Your task to perform on an android device: all mails in gmail Image 0: 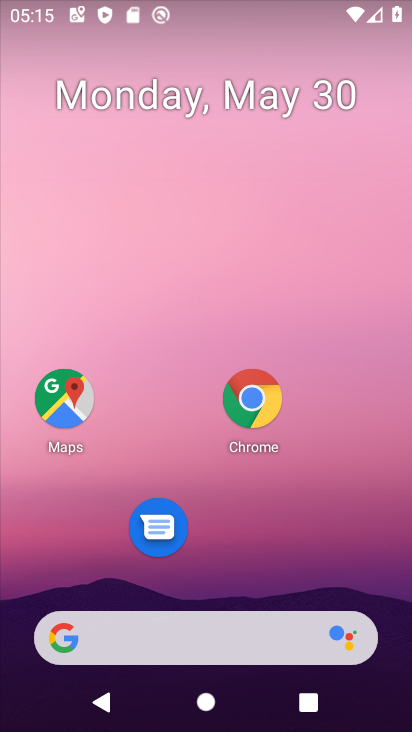
Step 0: drag from (246, 687) to (239, 64)
Your task to perform on an android device: all mails in gmail Image 1: 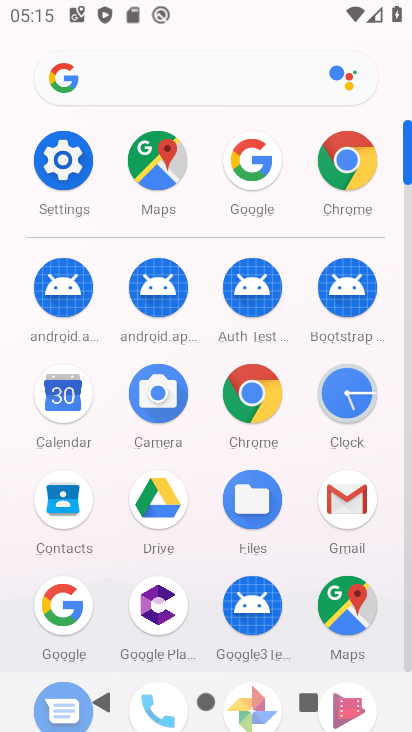
Step 1: click (343, 505)
Your task to perform on an android device: all mails in gmail Image 2: 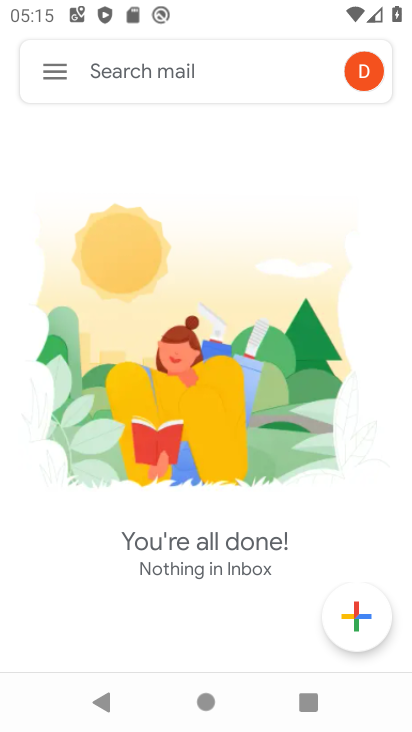
Step 2: click (60, 70)
Your task to perform on an android device: all mails in gmail Image 3: 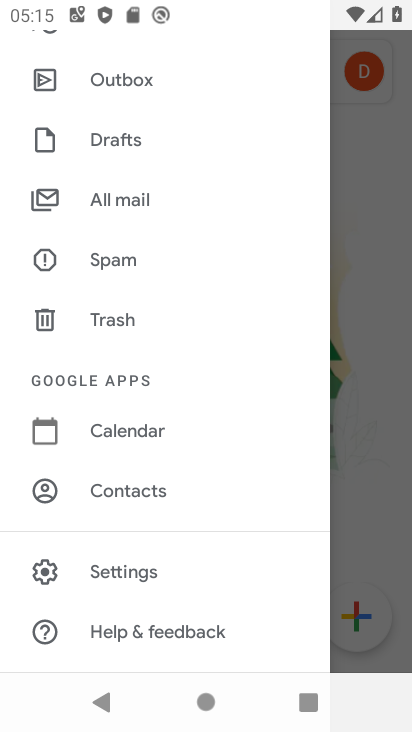
Step 3: click (119, 204)
Your task to perform on an android device: all mails in gmail Image 4: 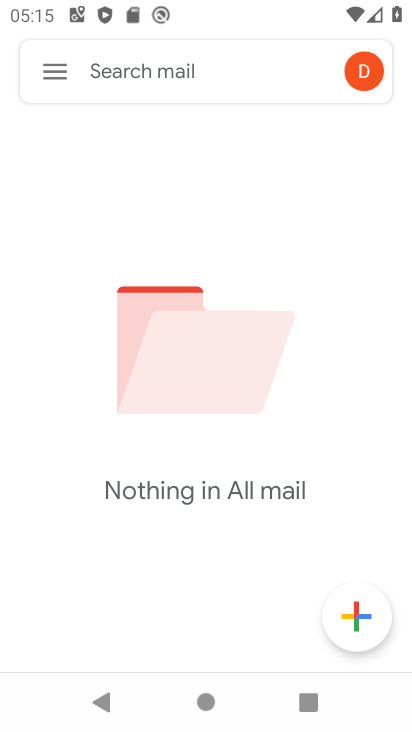
Step 4: task complete